Your task to perform on an android device: turn on the 12-hour format for clock Image 0: 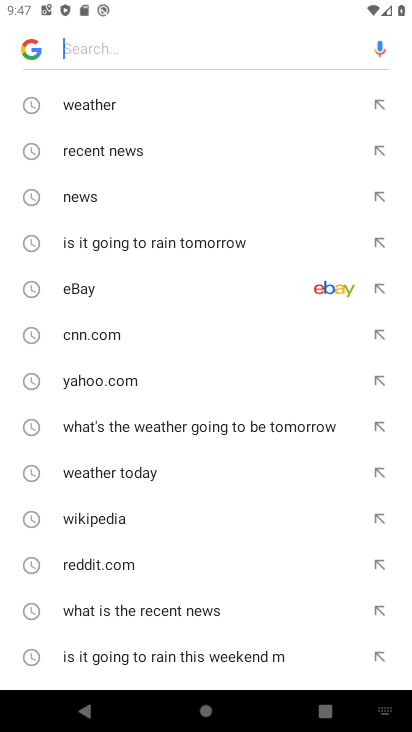
Step 0: press home button
Your task to perform on an android device: turn on the 12-hour format for clock Image 1: 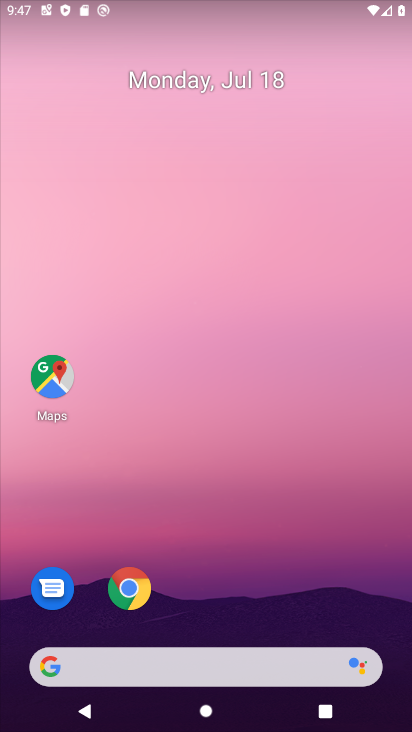
Step 1: drag from (297, 619) to (241, 100)
Your task to perform on an android device: turn on the 12-hour format for clock Image 2: 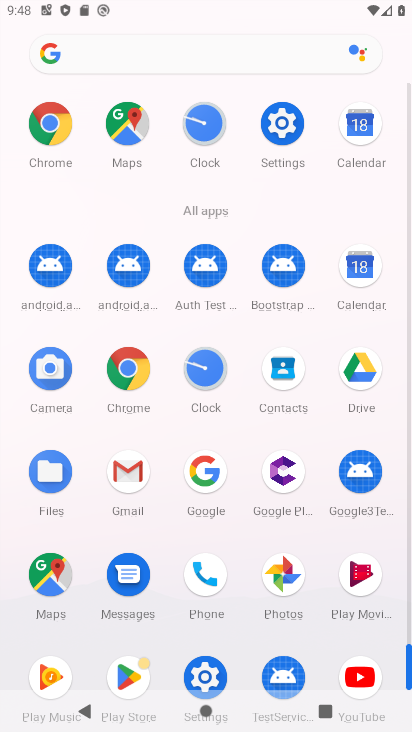
Step 2: click (211, 365)
Your task to perform on an android device: turn on the 12-hour format for clock Image 3: 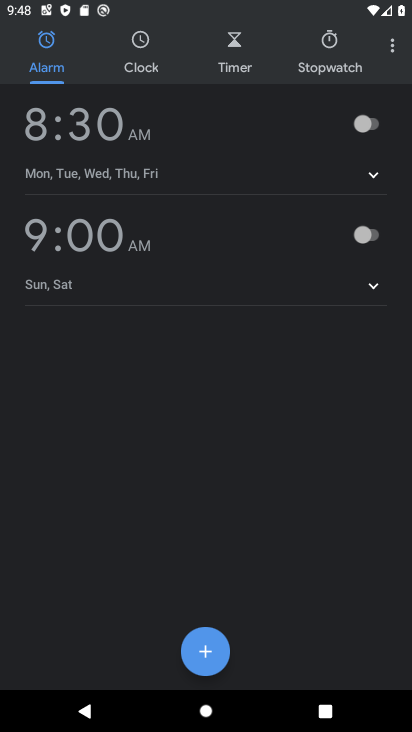
Step 3: click (392, 45)
Your task to perform on an android device: turn on the 12-hour format for clock Image 4: 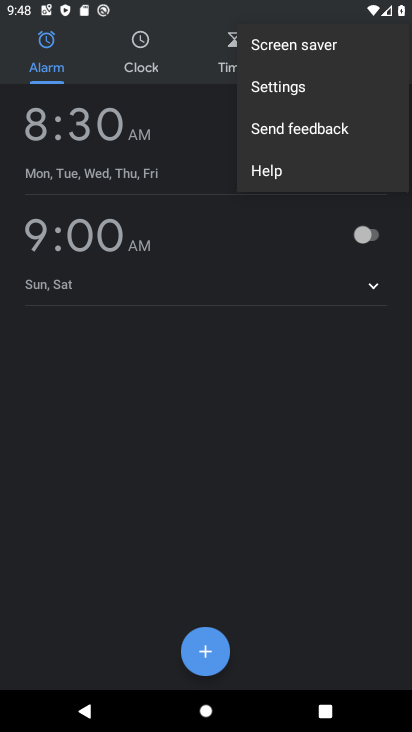
Step 4: click (288, 96)
Your task to perform on an android device: turn on the 12-hour format for clock Image 5: 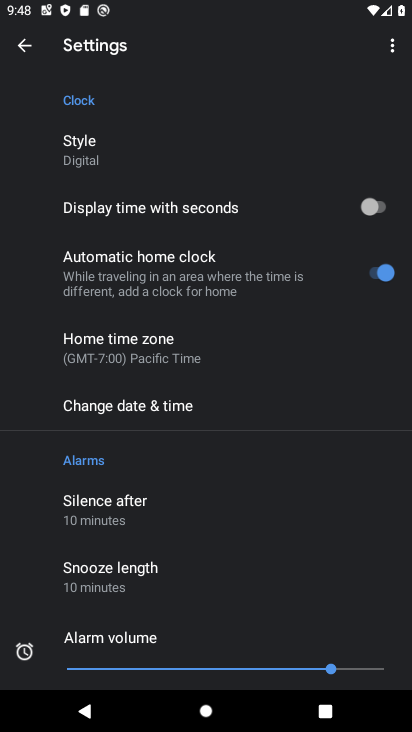
Step 5: click (151, 415)
Your task to perform on an android device: turn on the 12-hour format for clock Image 6: 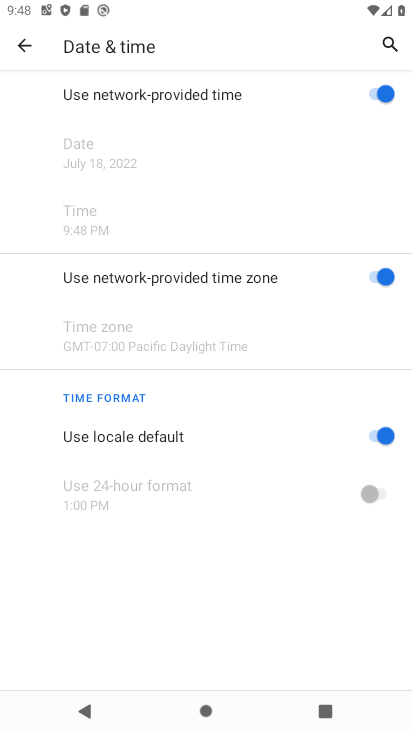
Step 6: task complete